Your task to perform on an android device: turn on javascript in the chrome app Image 0: 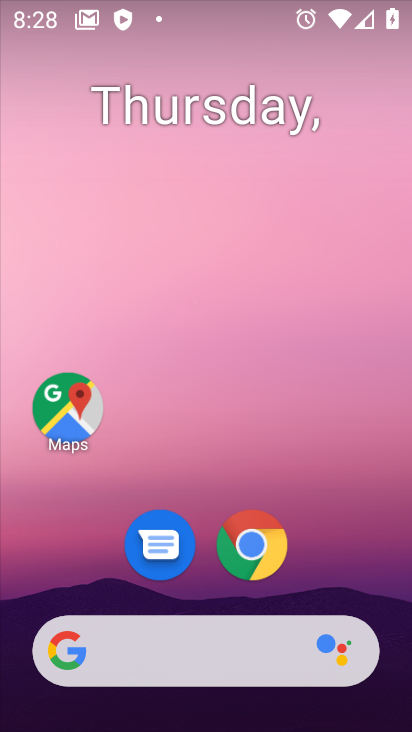
Step 0: click (254, 541)
Your task to perform on an android device: turn on javascript in the chrome app Image 1: 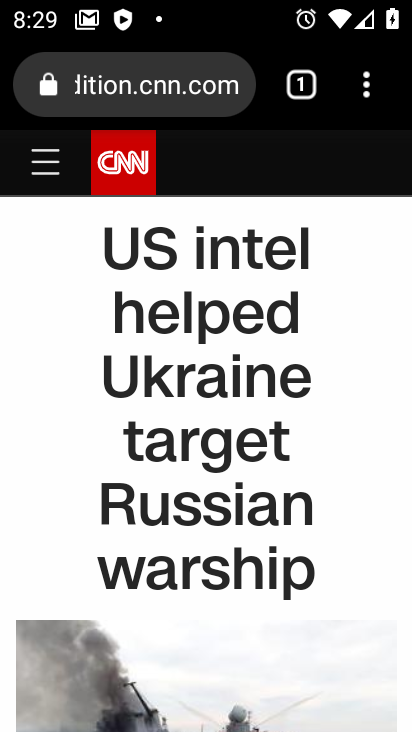
Step 1: click (387, 70)
Your task to perform on an android device: turn on javascript in the chrome app Image 2: 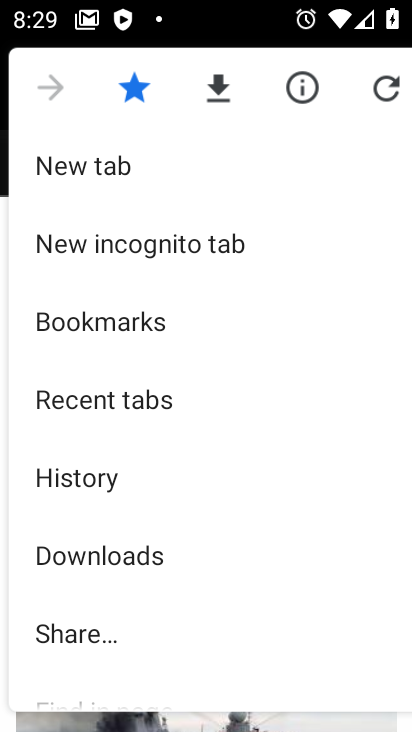
Step 2: drag from (181, 459) to (201, 192)
Your task to perform on an android device: turn on javascript in the chrome app Image 3: 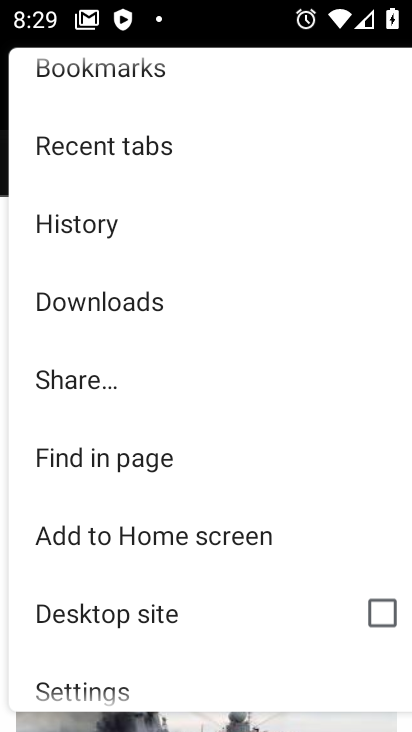
Step 3: click (74, 687)
Your task to perform on an android device: turn on javascript in the chrome app Image 4: 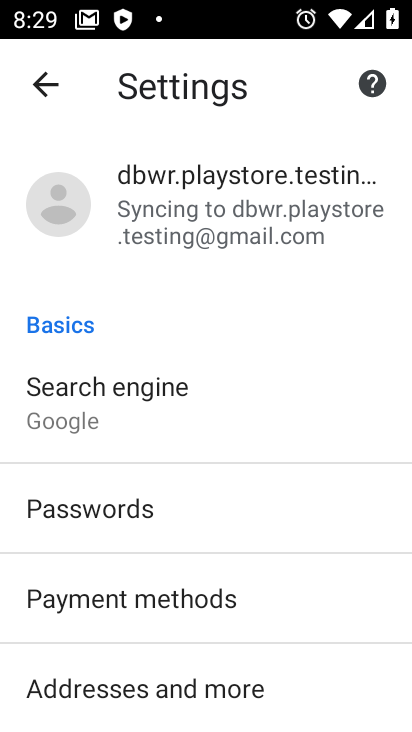
Step 4: drag from (74, 687) to (197, 289)
Your task to perform on an android device: turn on javascript in the chrome app Image 5: 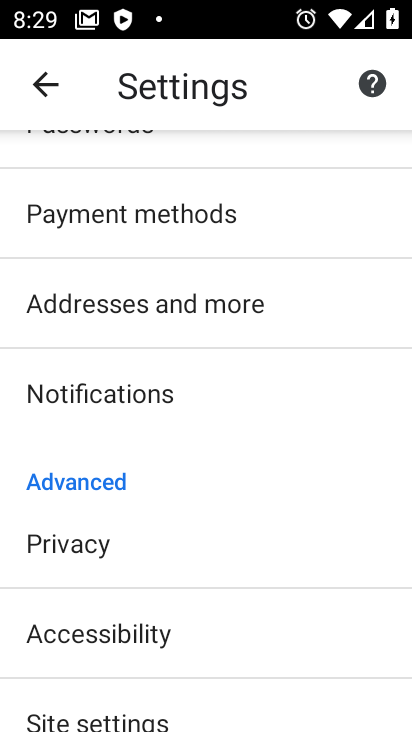
Step 5: click (34, 712)
Your task to perform on an android device: turn on javascript in the chrome app Image 6: 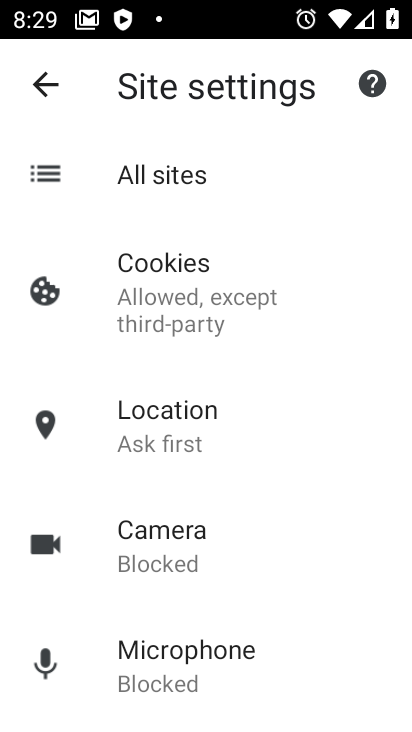
Step 6: drag from (144, 557) to (243, 111)
Your task to perform on an android device: turn on javascript in the chrome app Image 7: 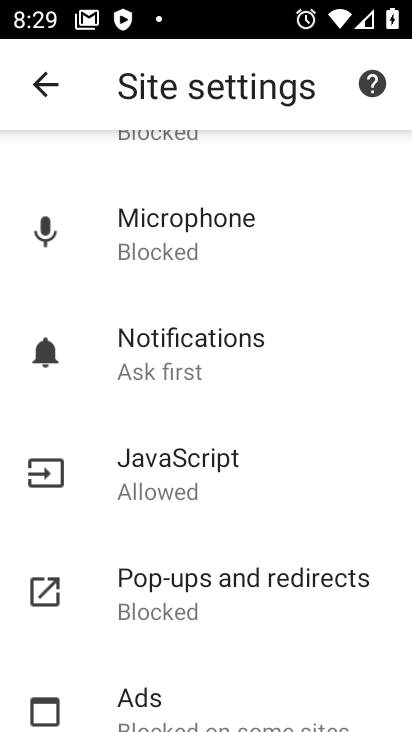
Step 7: click (55, 497)
Your task to perform on an android device: turn on javascript in the chrome app Image 8: 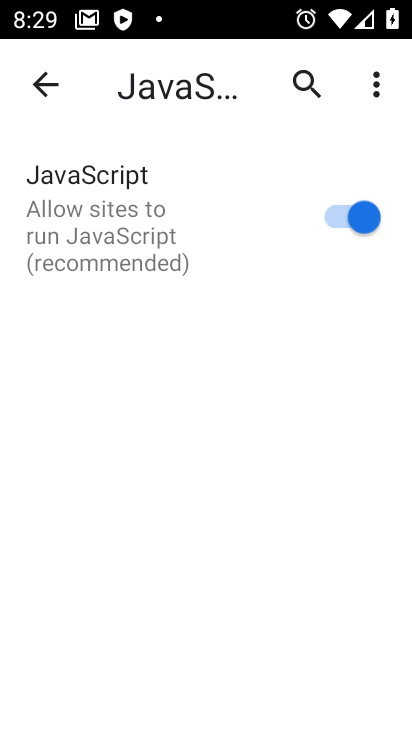
Step 8: task complete